Your task to perform on an android device: check data usage Image 0: 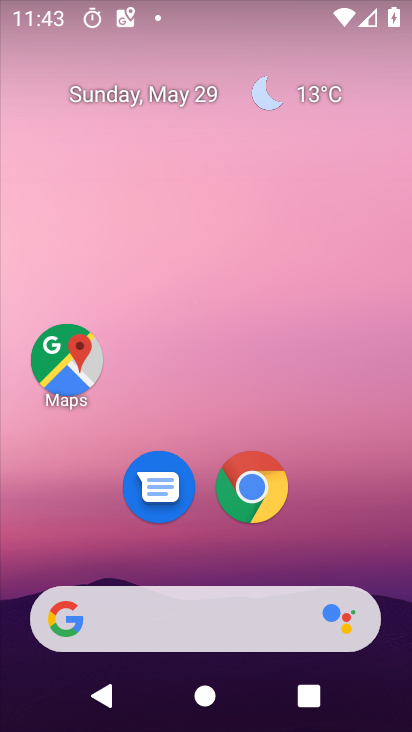
Step 0: drag from (396, 695) to (333, 141)
Your task to perform on an android device: check data usage Image 1: 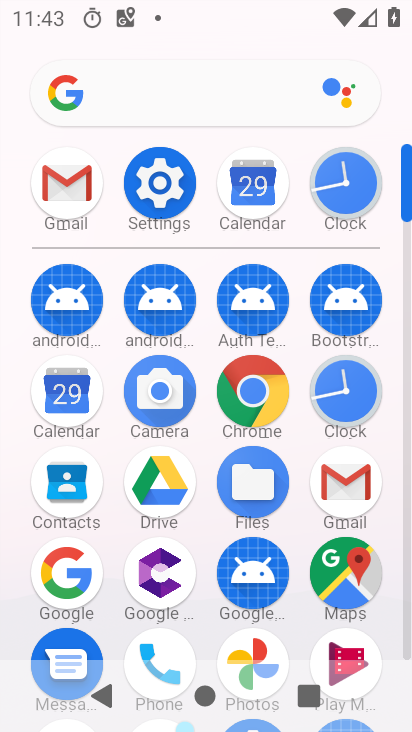
Step 1: click (166, 185)
Your task to perform on an android device: check data usage Image 2: 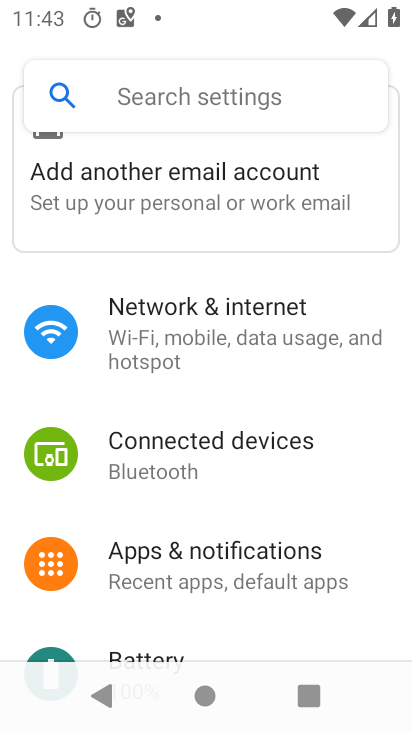
Step 2: click (185, 321)
Your task to perform on an android device: check data usage Image 3: 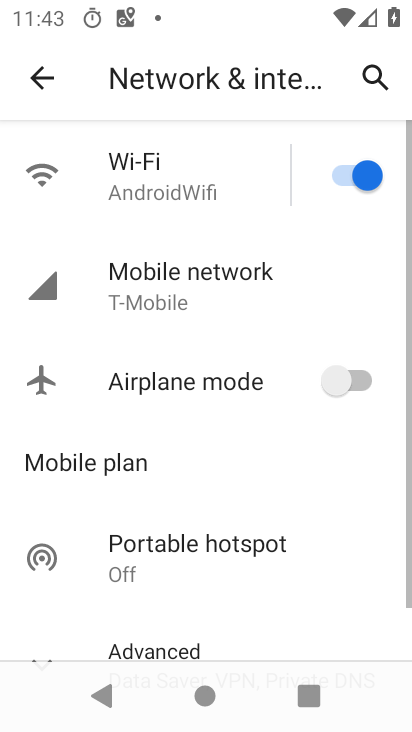
Step 3: click (186, 283)
Your task to perform on an android device: check data usage Image 4: 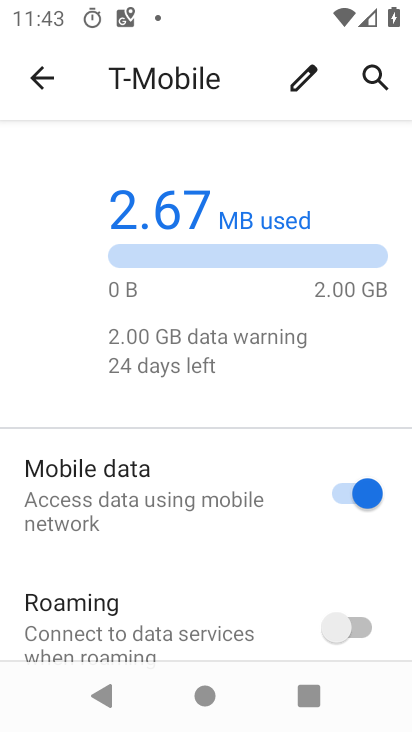
Step 4: task complete